Your task to perform on an android device: refresh tabs in the chrome app Image 0: 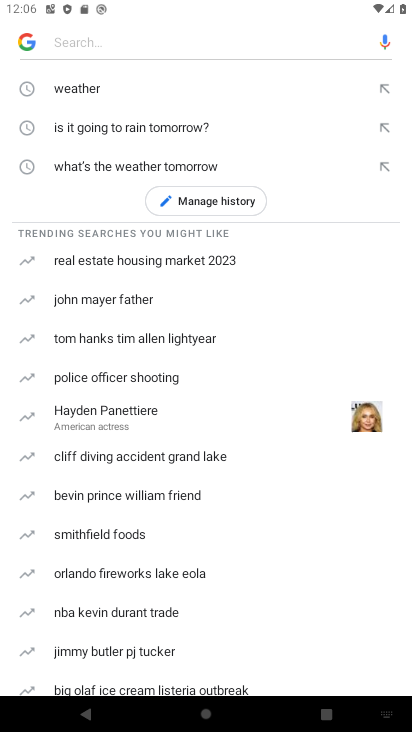
Step 0: press home button
Your task to perform on an android device: refresh tabs in the chrome app Image 1: 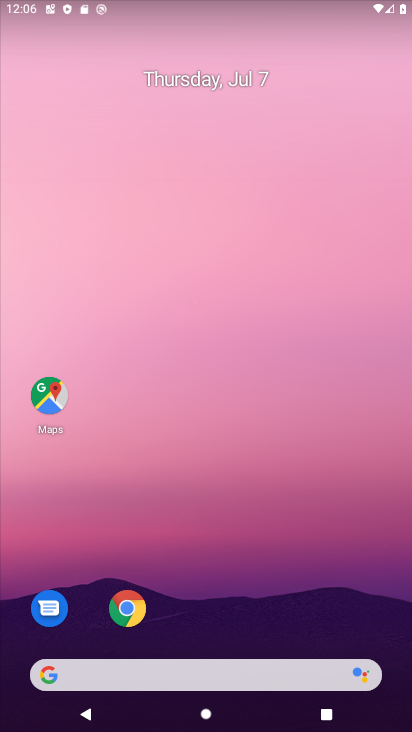
Step 1: click (128, 613)
Your task to perform on an android device: refresh tabs in the chrome app Image 2: 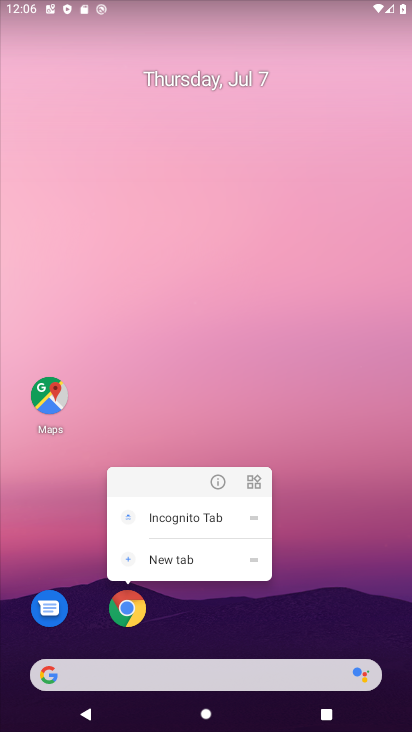
Step 2: click (133, 606)
Your task to perform on an android device: refresh tabs in the chrome app Image 3: 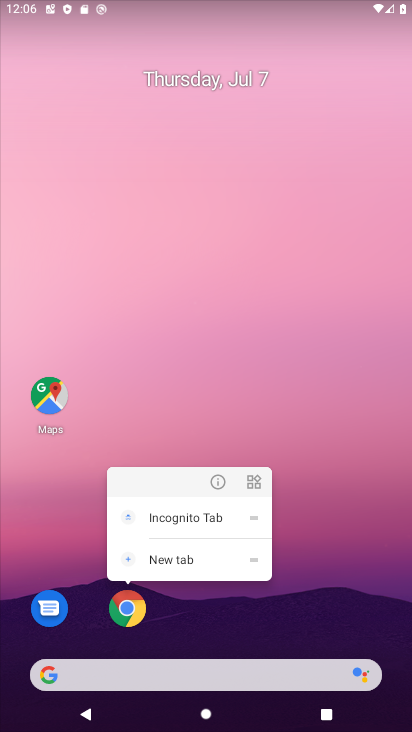
Step 3: click (131, 608)
Your task to perform on an android device: refresh tabs in the chrome app Image 4: 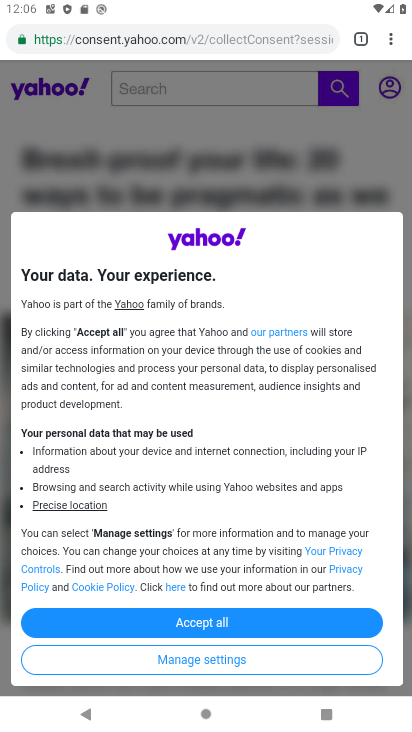
Step 4: click (395, 33)
Your task to perform on an android device: refresh tabs in the chrome app Image 5: 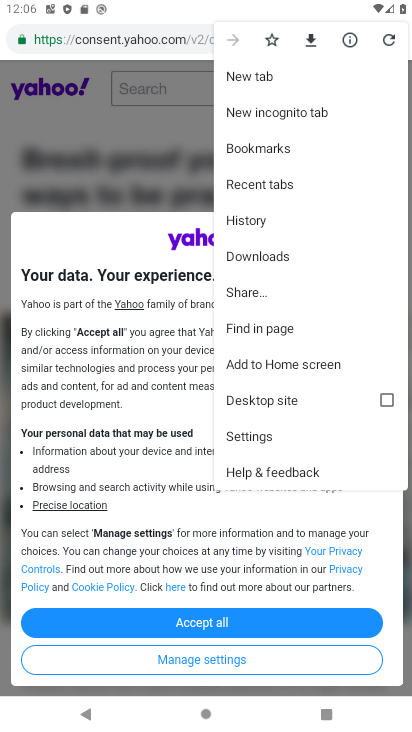
Step 5: click (390, 36)
Your task to perform on an android device: refresh tabs in the chrome app Image 6: 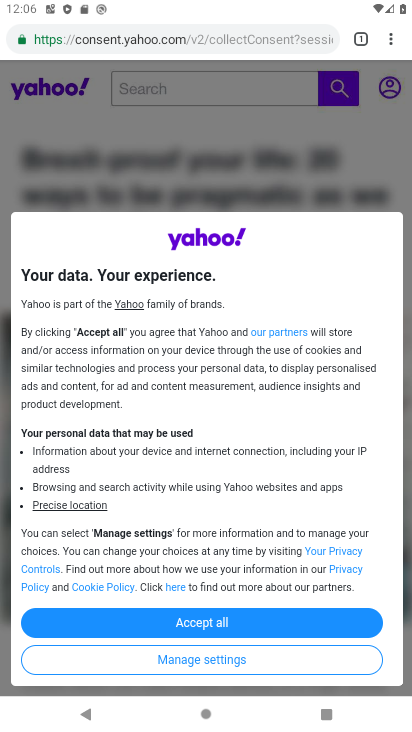
Step 6: task complete